Your task to perform on an android device: turn pop-ups off in chrome Image 0: 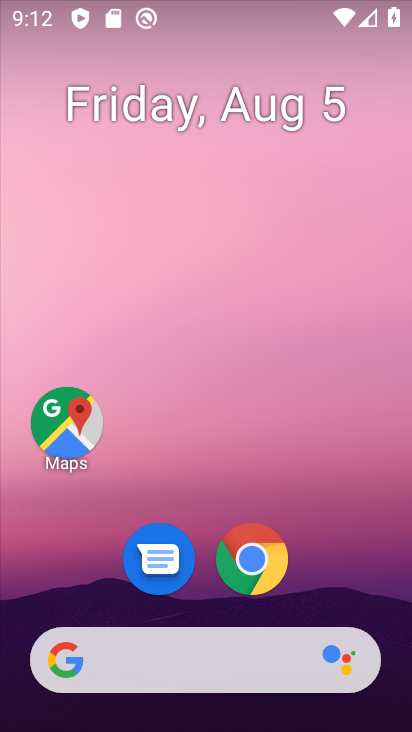
Step 0: click (248, 570)
Your task to perform on an android device: turn pop-ups off in chrome Image 1: 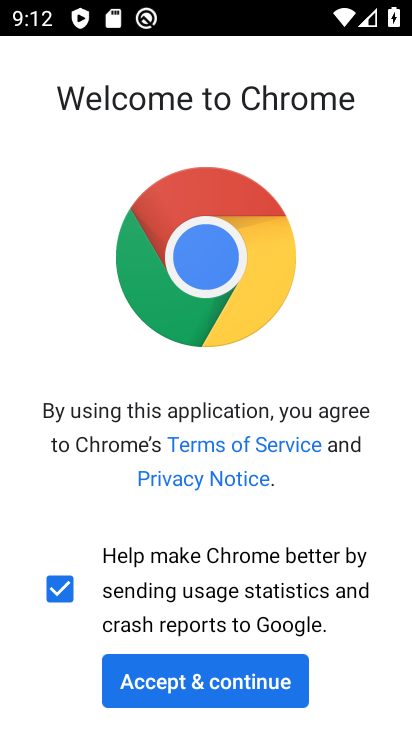
Step 1: click (215, 671)
Your task to perform on an android device: turn pop-ups off in chrome Image 2: 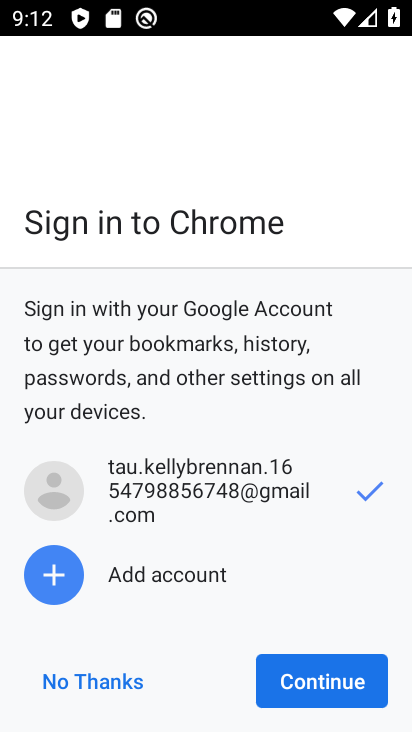
Step 2: click (270, 678)
Your task to perform on an android device: turn pop-ups off in chrome Image 3: 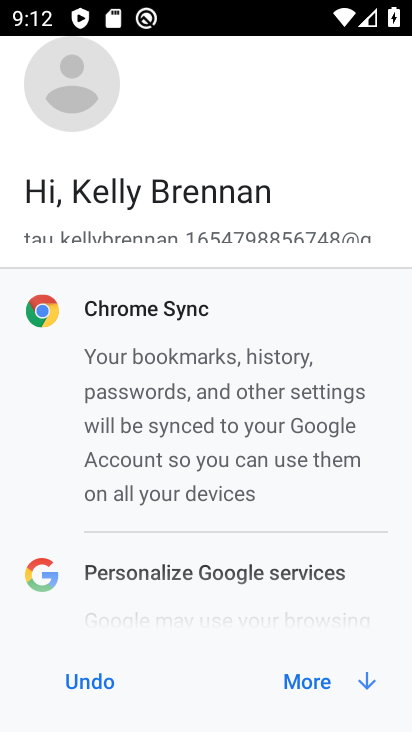
Step 3: click (283, 677)
Your task to perform on an android device: turn pop-ups off in chrome Image 4: 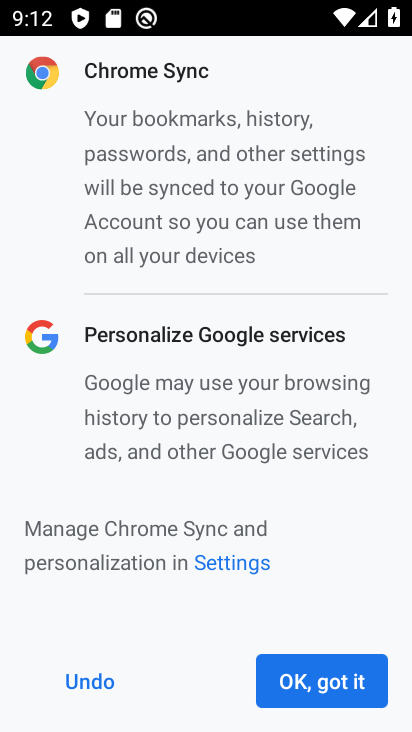
Step 4: click (283, 677)
Your task to perform on an android device: turn pop-ups off in chrome Image 5: 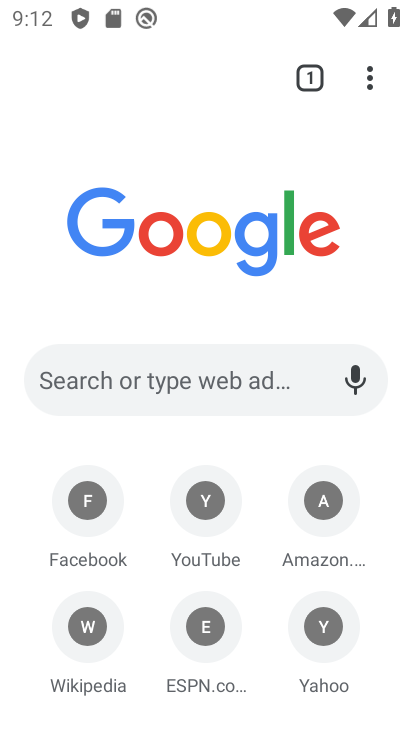
Step 5: click (372, 71)
Your task to perform on an android device: turn pop-ups off in chrome Image 6: 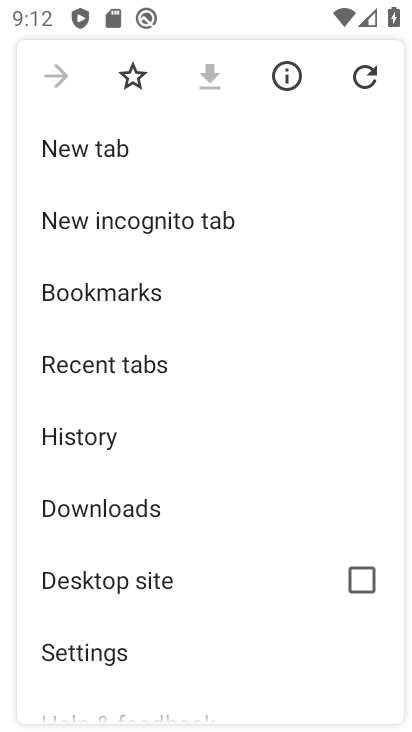
Step 6: drag from (231, 463) to (255, 198)
Your task to perform on an android device: turn pop-ups off in chrome Image 7: 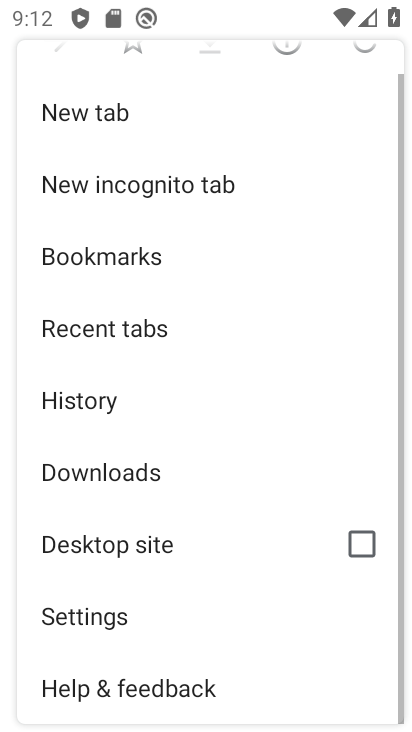
Step 7: click (107, 635)
Your task to perform on an android device: turn pop-ups off in chrome Image 8: 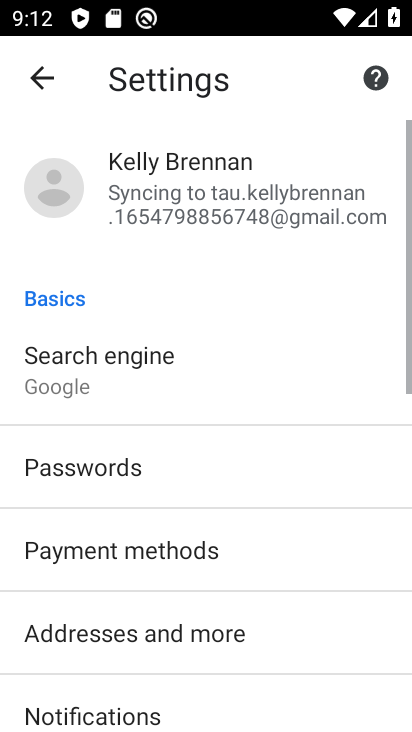
Step 8: drag from (107, 633) to (199, 261)
Your task to perform on an android device: turn pop-ups off in chrome Image 9: 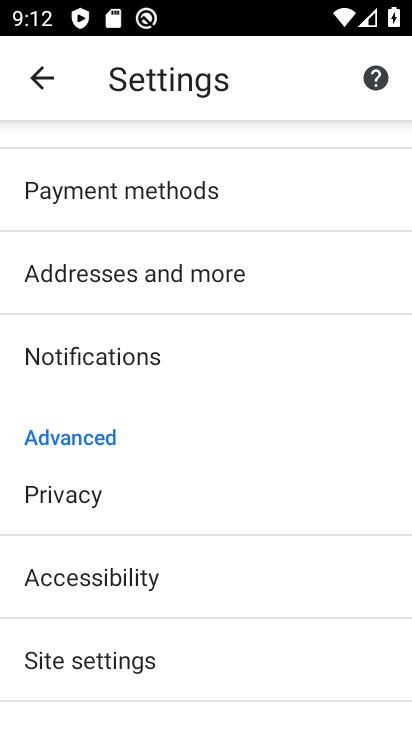
Step 9: drag from (152, 578) to (226, 274)
Your task to perform on an android device: turn pop-ups off in chrome Image 10: 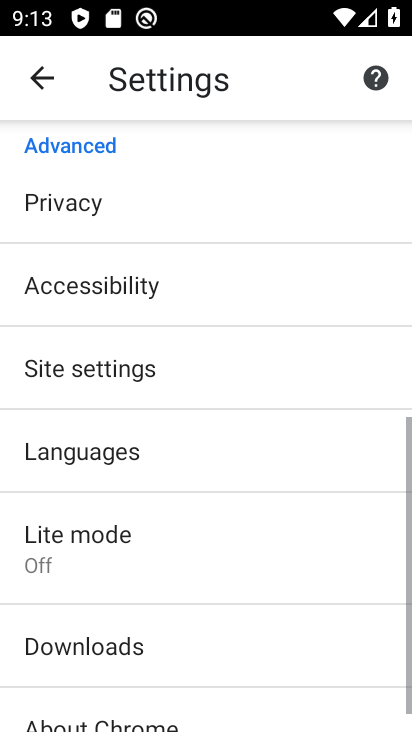
Step 10: drag from (104, 599) to (184, 242)
Your task to perform on an android device: turn pop-ups off in chrome Image 11: 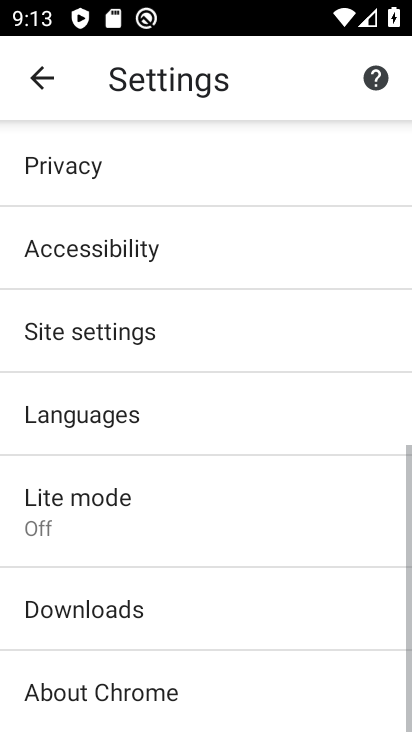
Step 11: click (163, 338)
Your task to perform on an android device: turn pop-ups off in chrome Image 12: 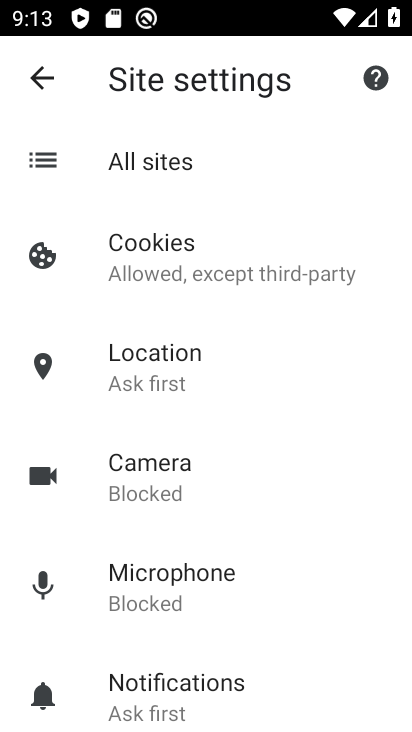
Step 12: drag from (159, 600) to (230, 314)
Your task to perform on an android device: turn pop-ups off in chrome Image 13: 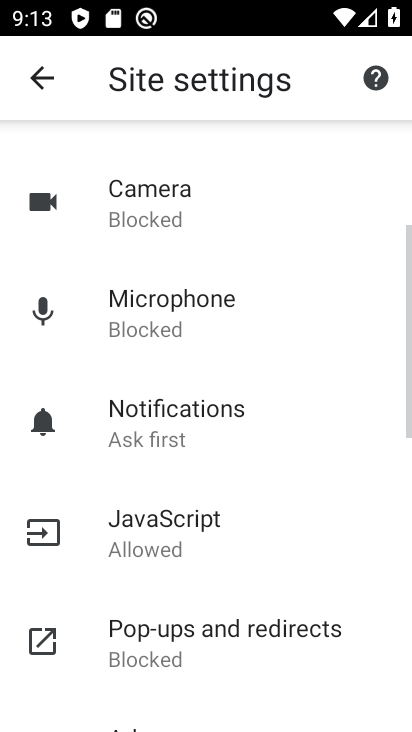
Step 13: drag from (243, 570) to (269, 332)
Your task to perform on an android device: turn pop-ups off in chrome Image 14: 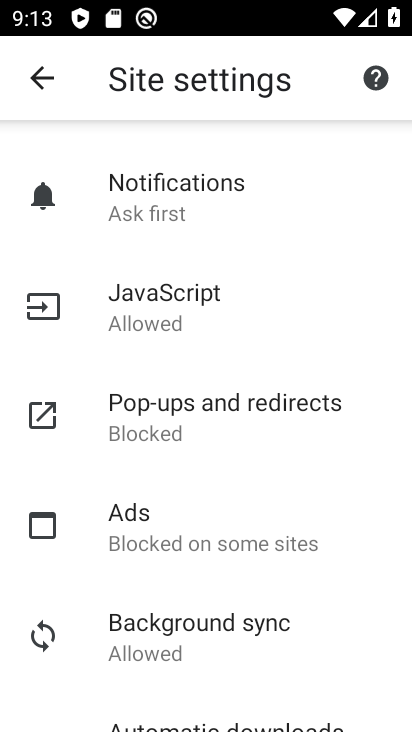
Step 14: click (261, 400)
Your task to perform on an android device: turn pop-ups off in chrome Image 15: 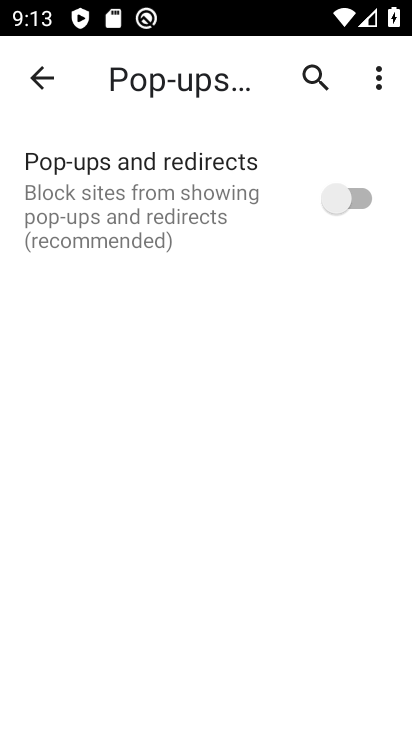
Step 15: task complete